Your task to perform on an android device: change text size in settings app Image 0: 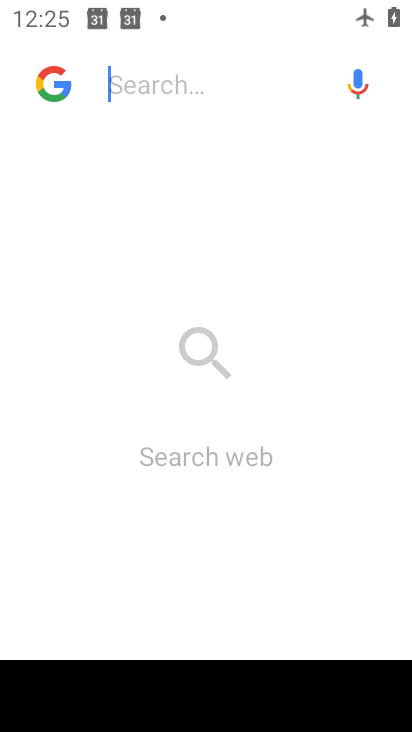
Step 0: press home button
Your task to perform on an android device: change text size in settings app Image 1: 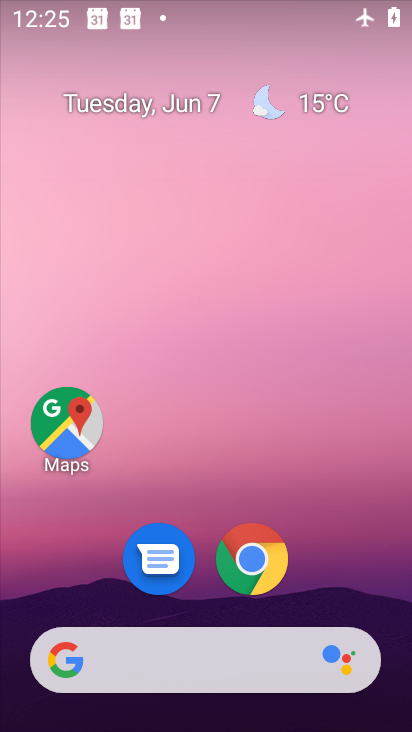
Step 1: drag from (392, 640) to (325, 152)
Your task to perform on an android device: change text size in settings app Image 2: 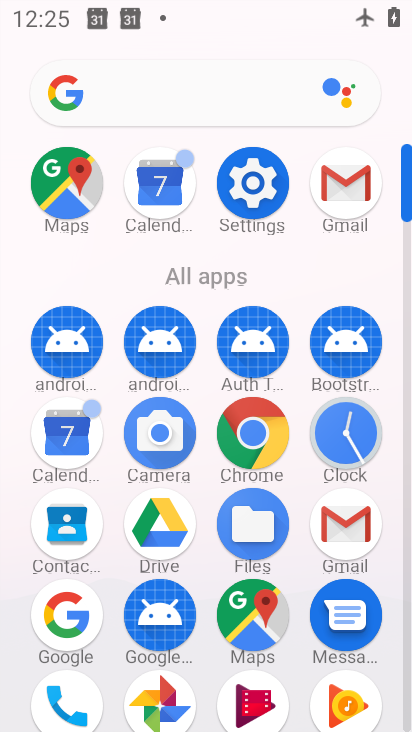
Step 2: click (407, 713)
Your task to perform on an android device: change text size in settings app Image 3: 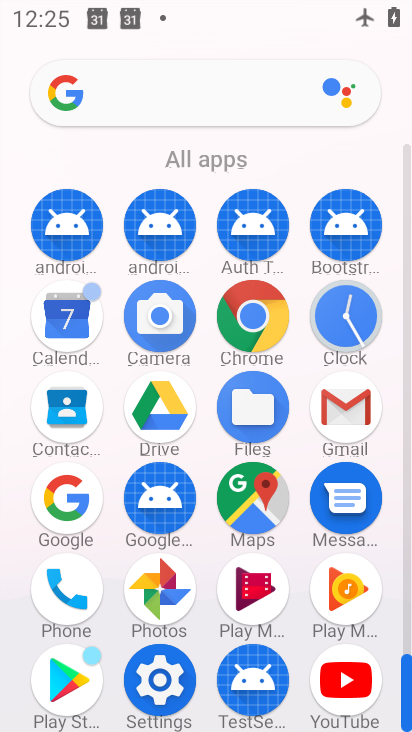
Step 3: click (157, 678)
Your task to perform on an android device: change text size in settings app Image 4: 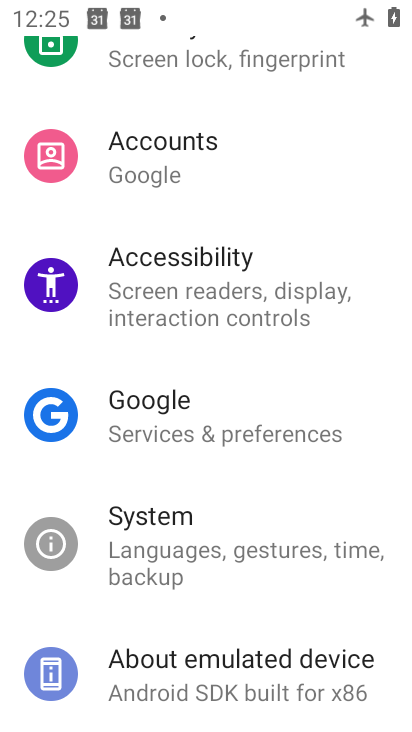
Step 4: drag from (330, 168) to (357, 509)
Your task to perform on an android device: change text size in settings app Image 5: 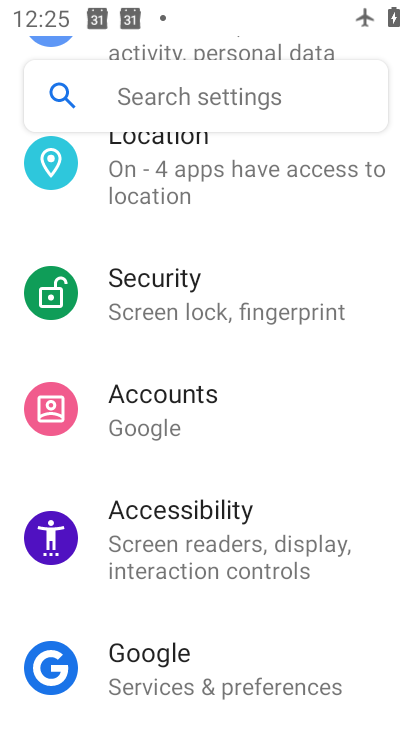
Step 5: drag from (373, 183) to (346, 540)
Your task to perform on an android device: change text size in settings app Image 6: 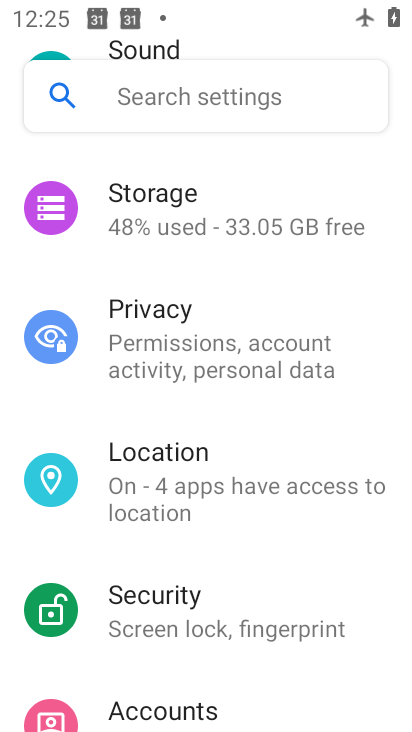
Step 6: drag from (384, 272) to (380, 588)
Your task to perform on an android device: change text size in settings app Image 7: 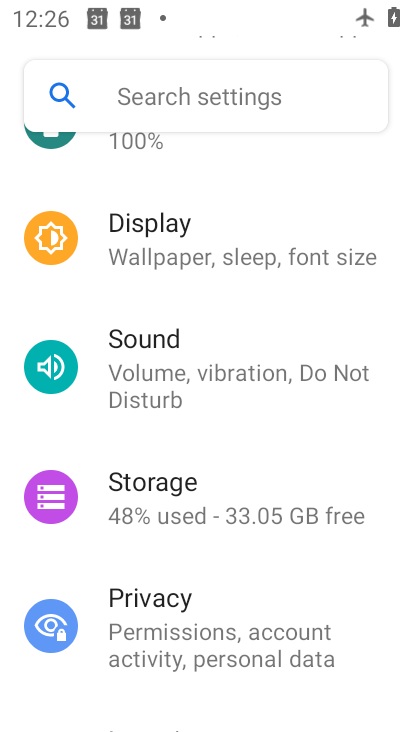
Step 7: click (172, 232)
Your task to perform on an android device: change text size in settings app Image 8: 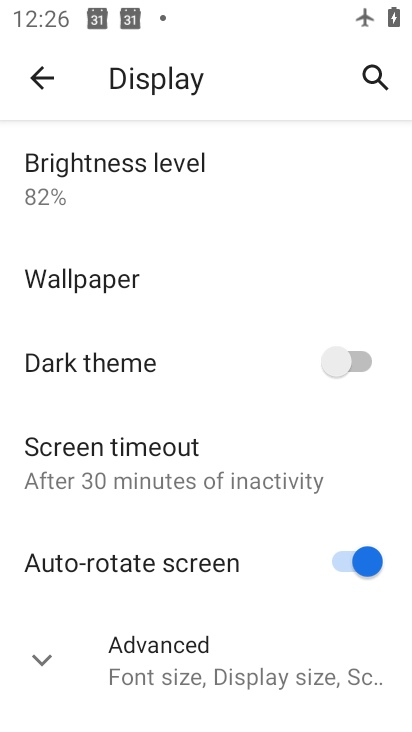
Step 8: click (47, 663)
Your task to perform on an android device: change text size in settings app Image 9: 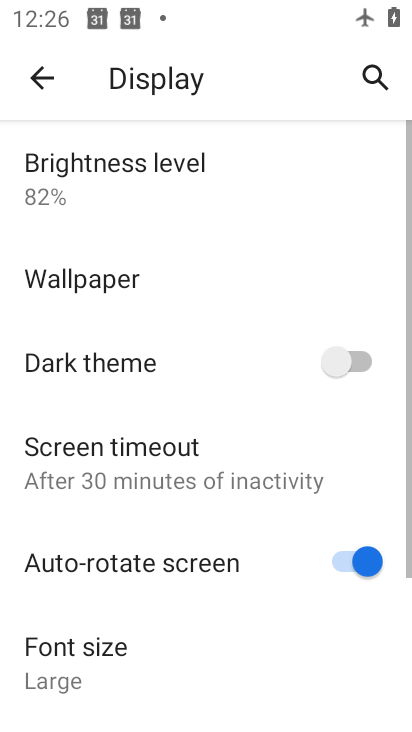
Step 9: drag from (236, 672) to (247, 281)
Your task to perform on an android device: change text size in settings app Image 10: 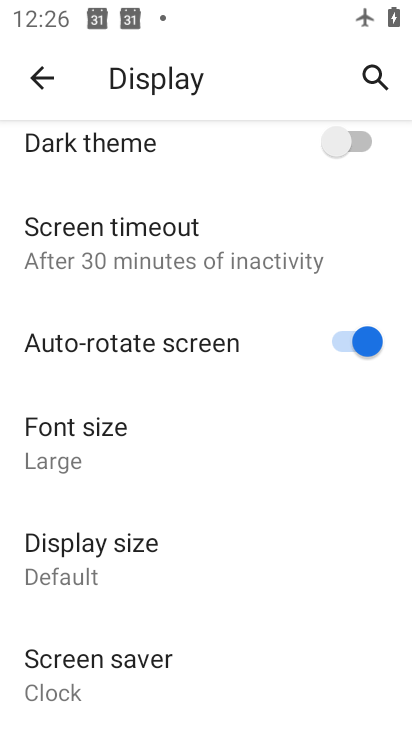
Step 10: click (69, 444)
Your task to perform on an android device: change text size in settings app Image 11: 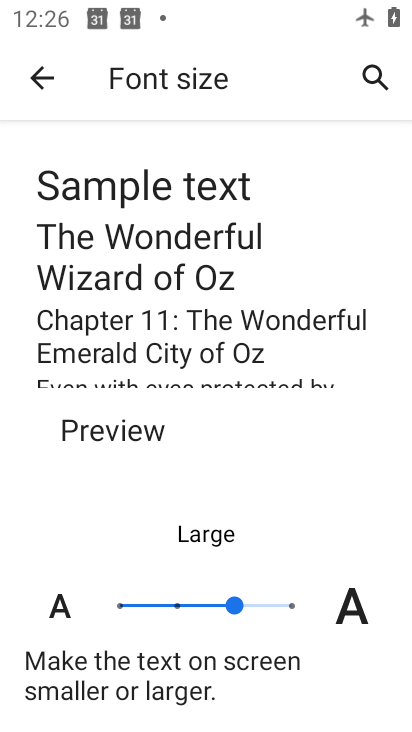
Step 11: click (178, 607)
Your task to perform on an android device: change text size in settings app Image 12: 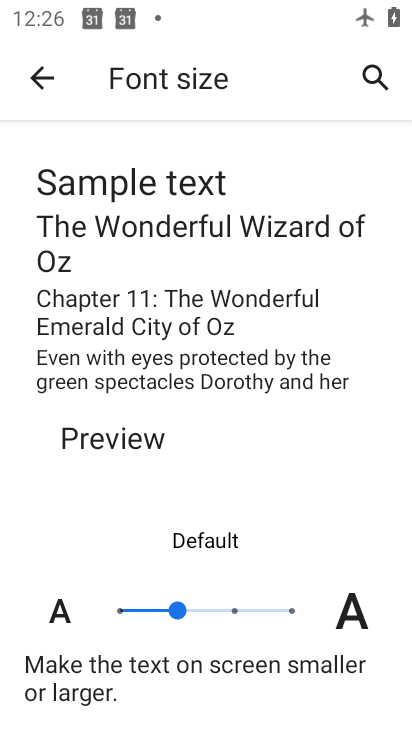
Step 12: task complete